Your task to perform on an android device: Search for "razer naga" on newegg.com, select the first entry, and add it to the cart. Image 0: 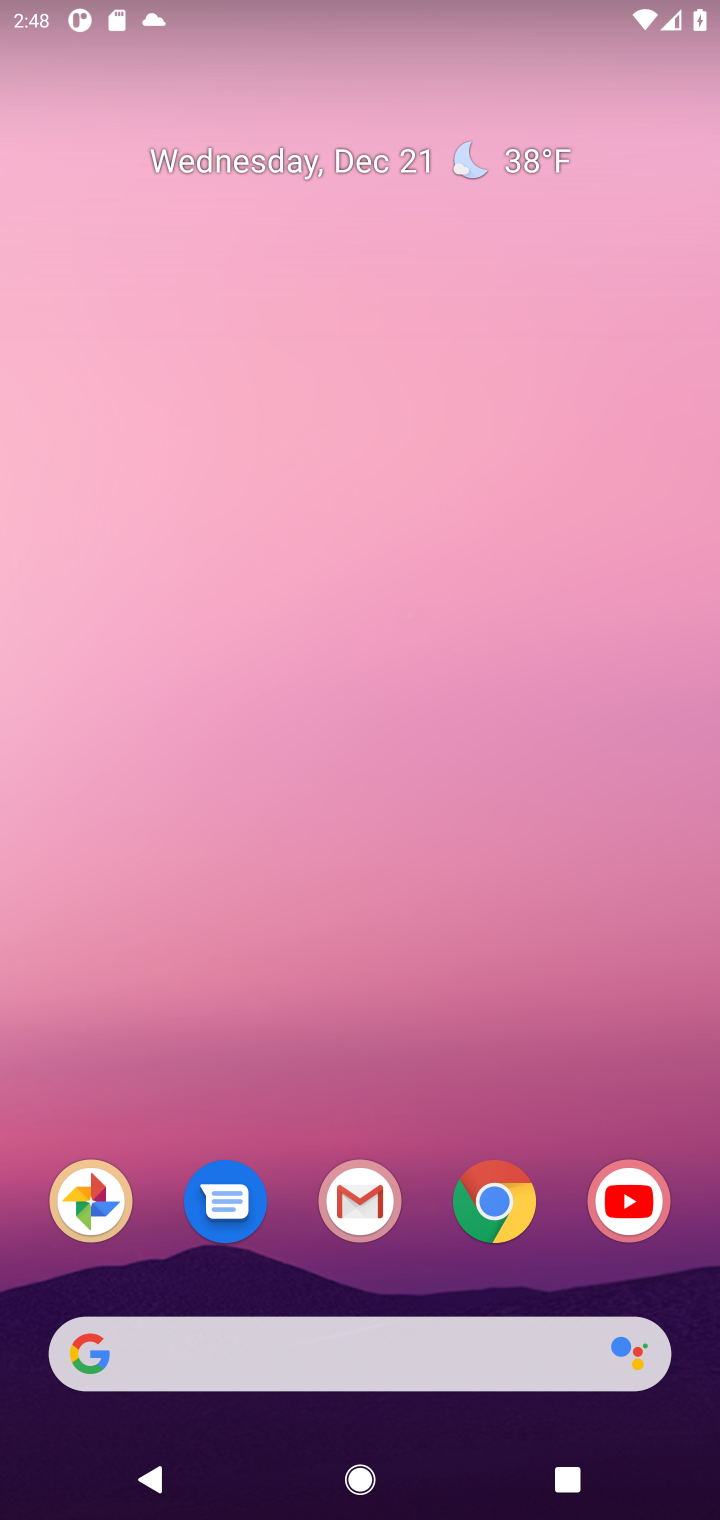
Step 0: click (493, 1216)
Your task to perform on an android device: Search for "razer naga" on newegg.com, select the first entry, and add it to the cart. Image 1: 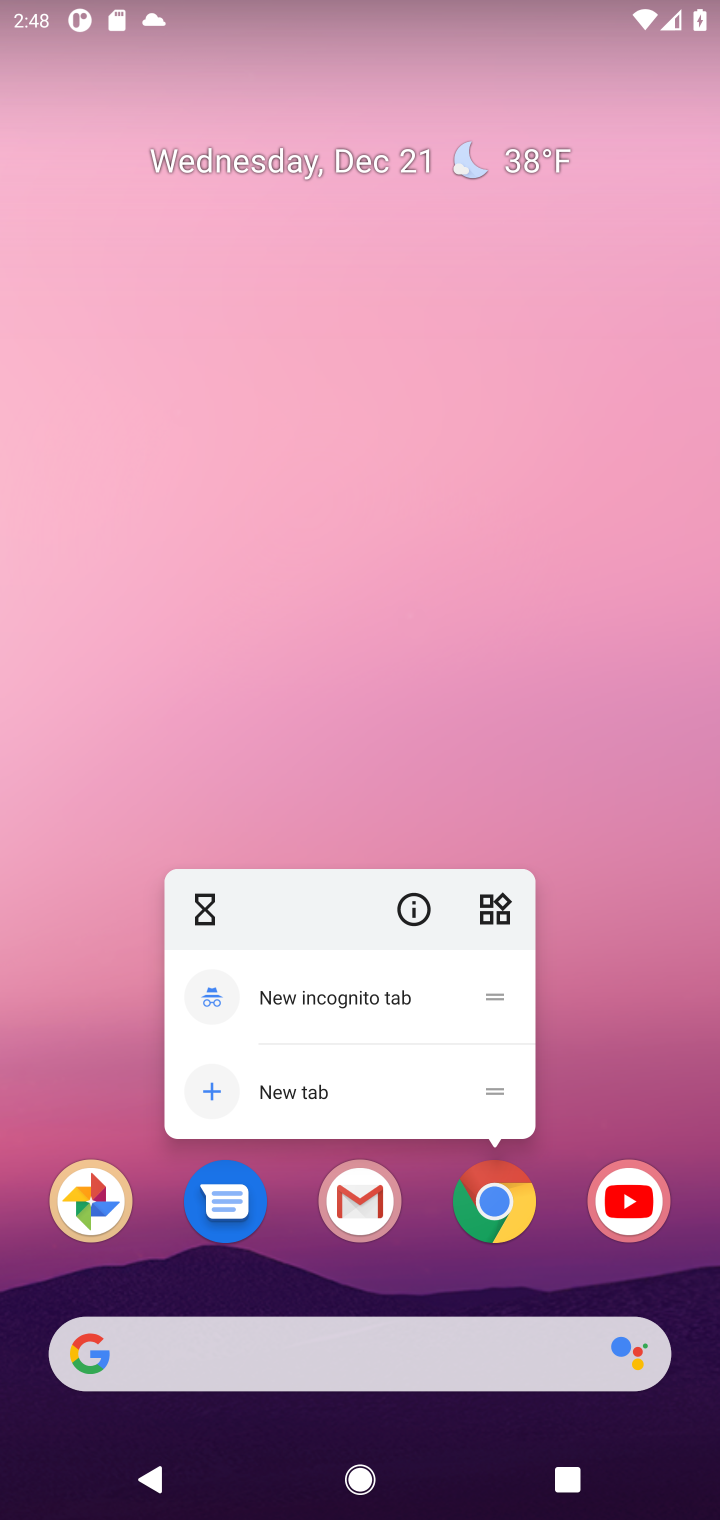
Step 1: click (493, 1216)
Your task to perform on an android device: Search for "razer naga" on newegg.com, select the first entry, and add it to the cart. Image 2: 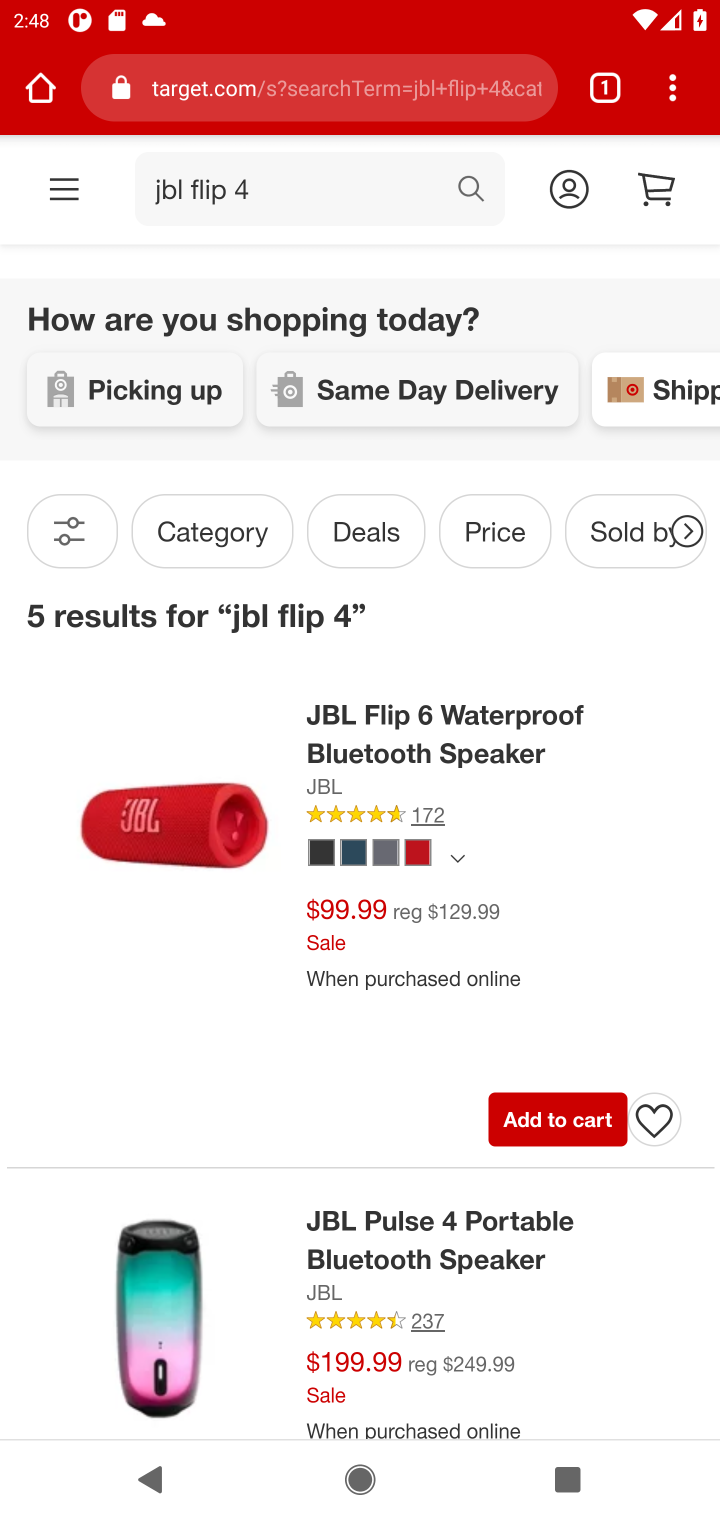
Step 2: click (251, 104)
Your task to perform on an android device: Search for "razer naga" on newegg.com, select the first entry, and add it to the cart. Image 3: 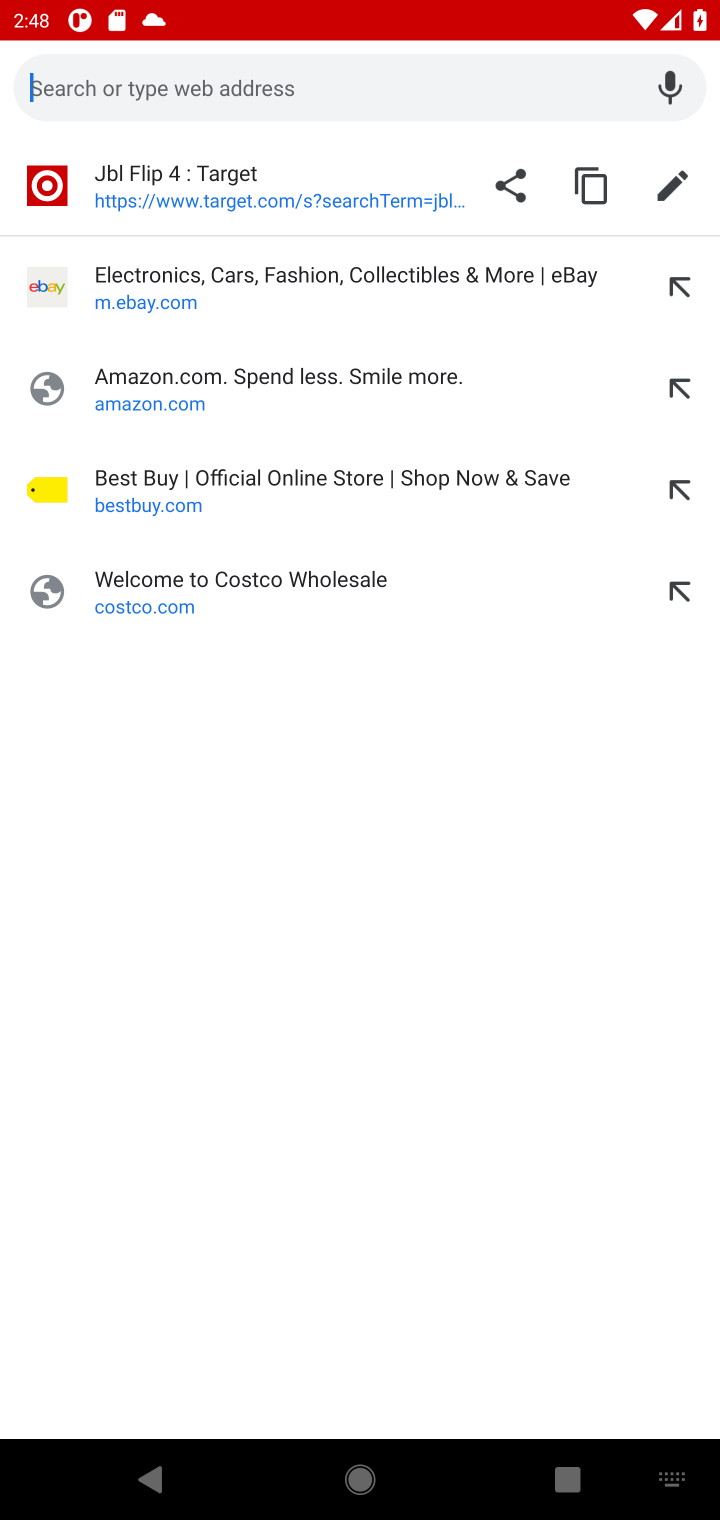
Step 3: type "newegg.com"
Your task to perform on an android device: Search for "razer naga" on newegg.com, select the first entry, and add it to the cart. Image 4: 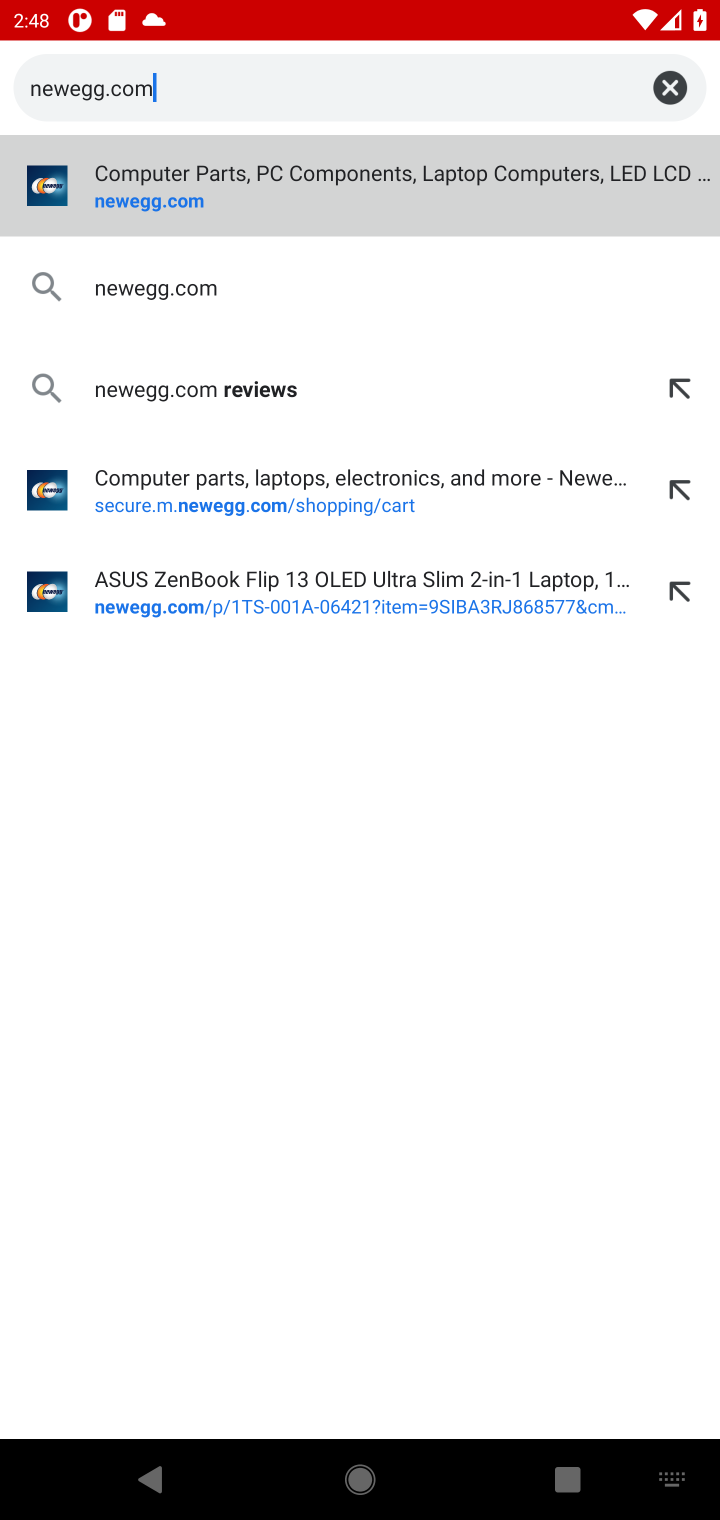
Step 4: click (136, 205)
Your task to perform on an android device: Search for "razer naga" on newegg.com, select the first entry, and add it to the cart. Image 5: 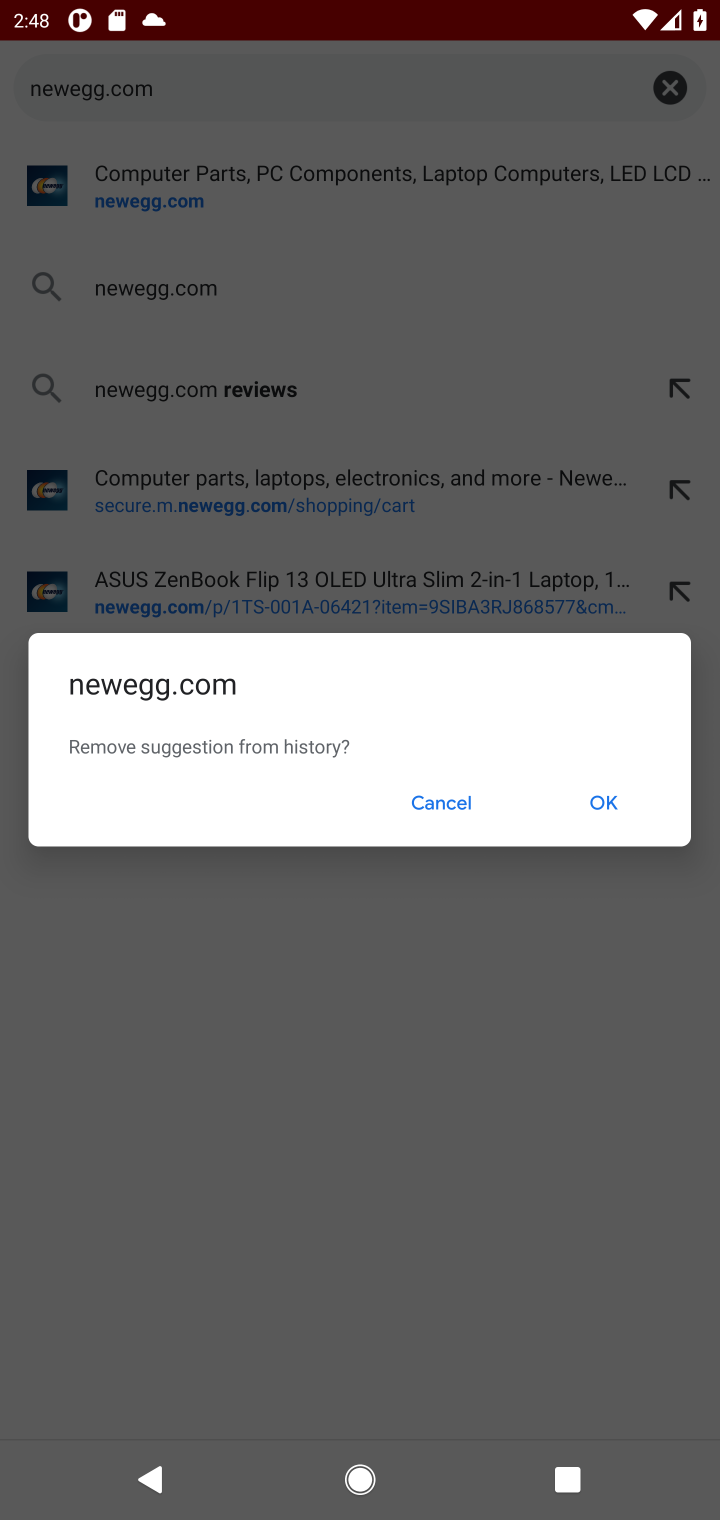
Step 5: click (434, 809)
Your task to perform on an android device: Search for "razer naga" on newegg.com, select the first entry, and add it to the cart. Image 6: 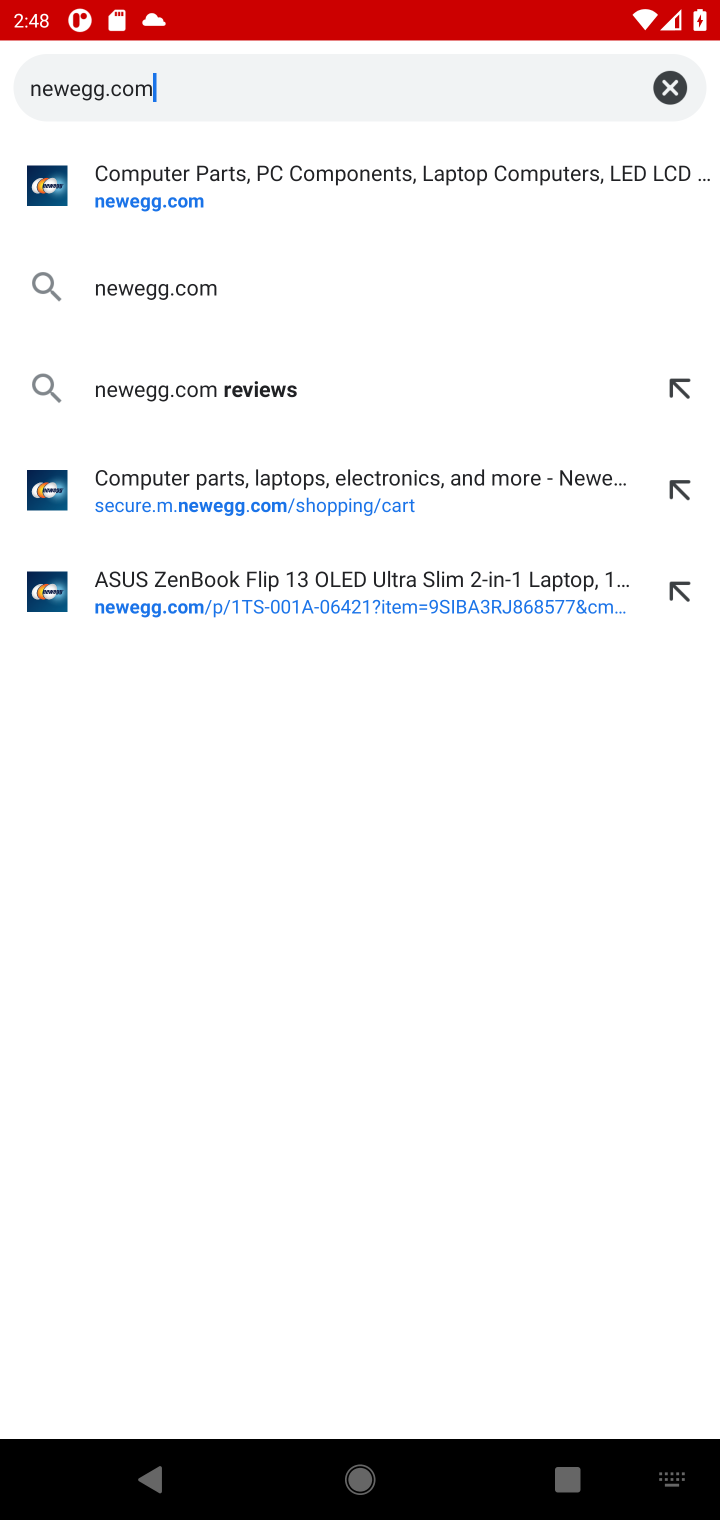
Step 6: click (147, 206)
Your task to perform on an android device: Search for "razer naga" on newegg.com, select the first entry, and add it to the cart. Image 7: 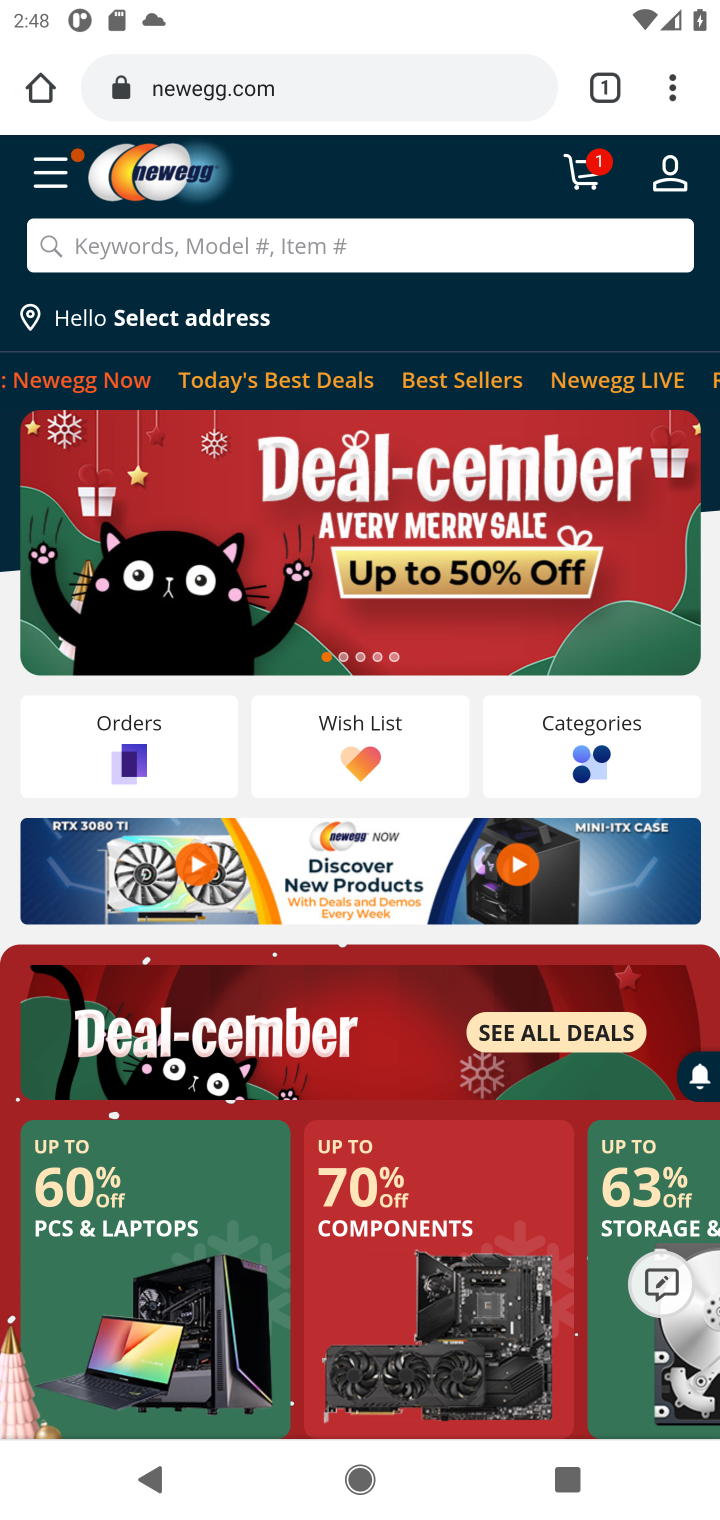
Step 7: click (91, 248)
Your task to perform on an android device: Search for "razer naga" on newegg.com, select the first entry, and add it to the cart. Image 8: 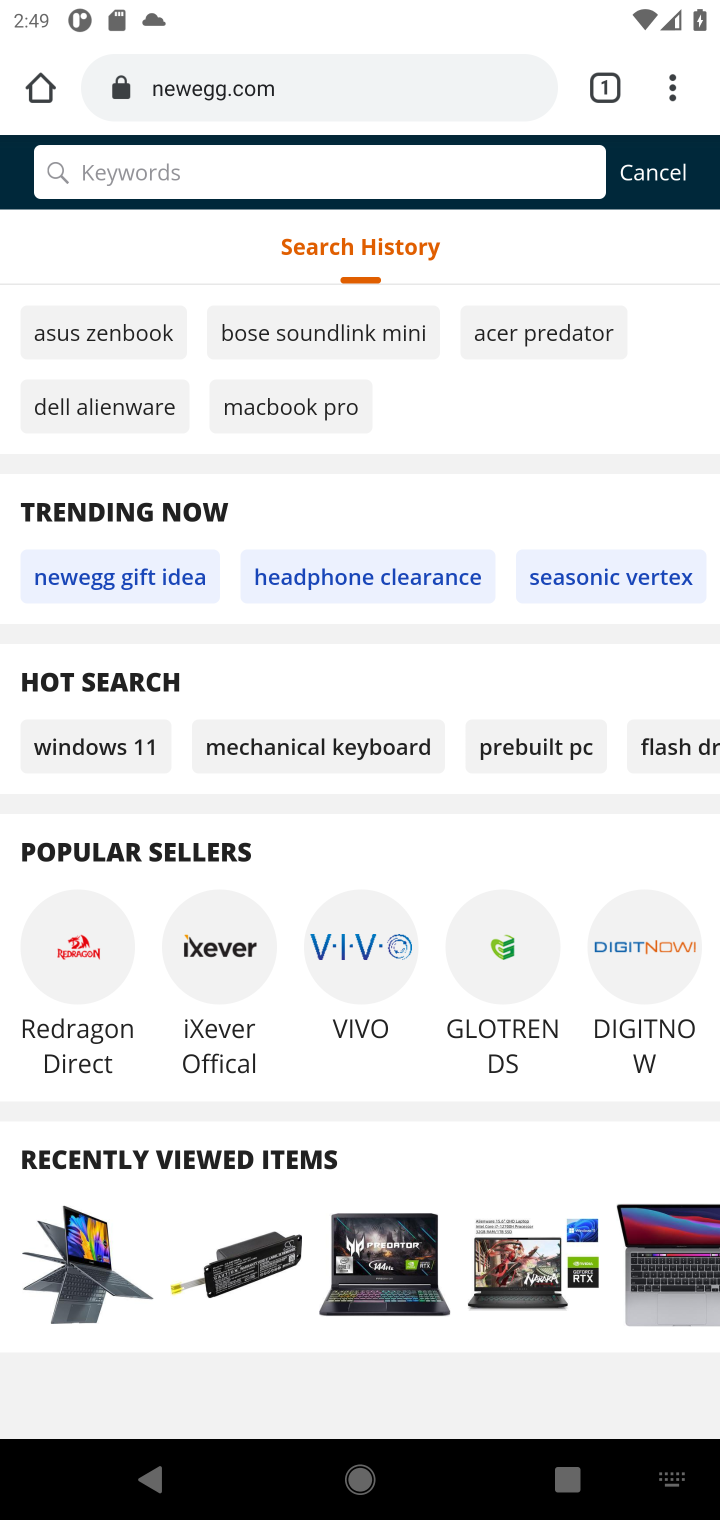
Step 8: type "razer naga"
Your task to perform on an android device: Search for "razer naga" on newegg.com, select the first entry, and add it to the cart. Image 9: 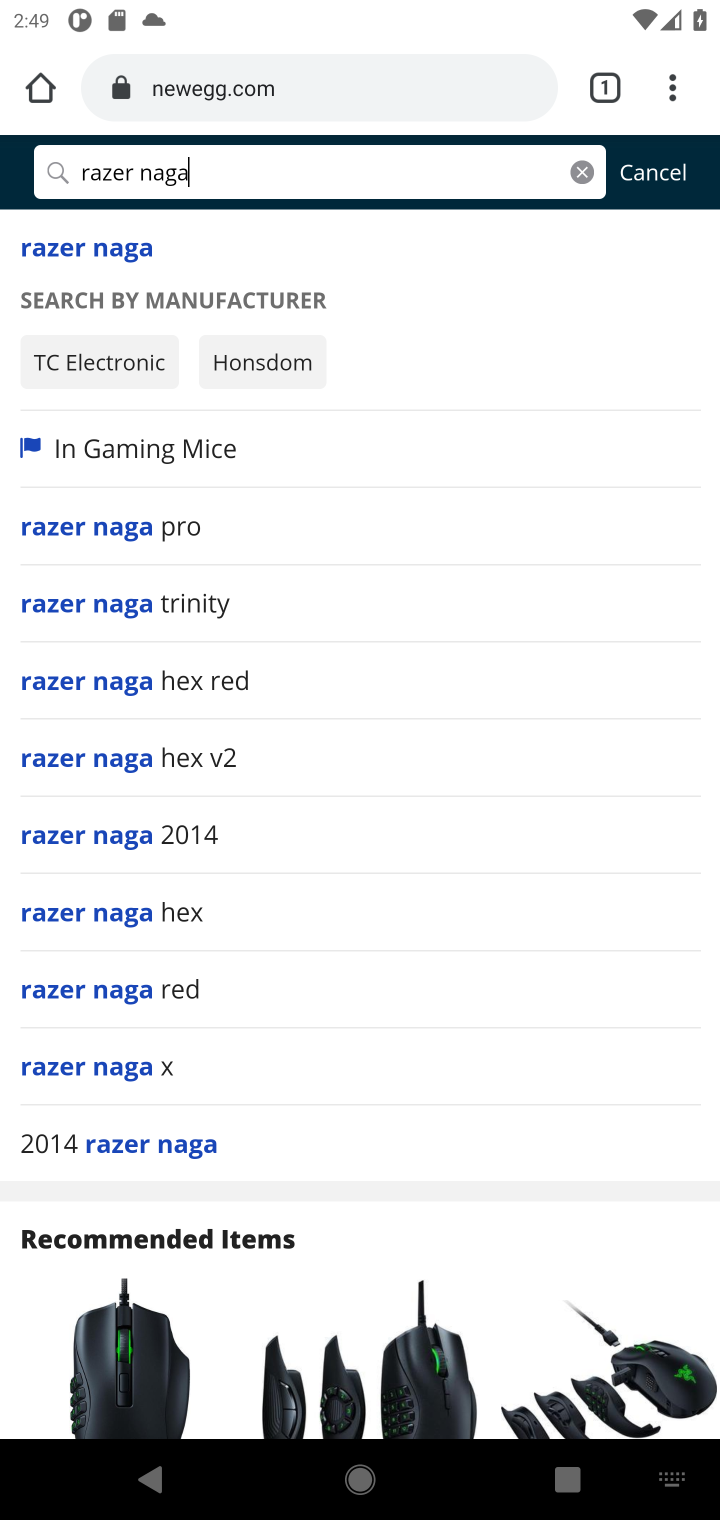
Step 9: click (94, 253)
Your task to perform on an android device: Search for "razer naga" on newegg.com, select the first entry, and add it to the cart. Image 10: 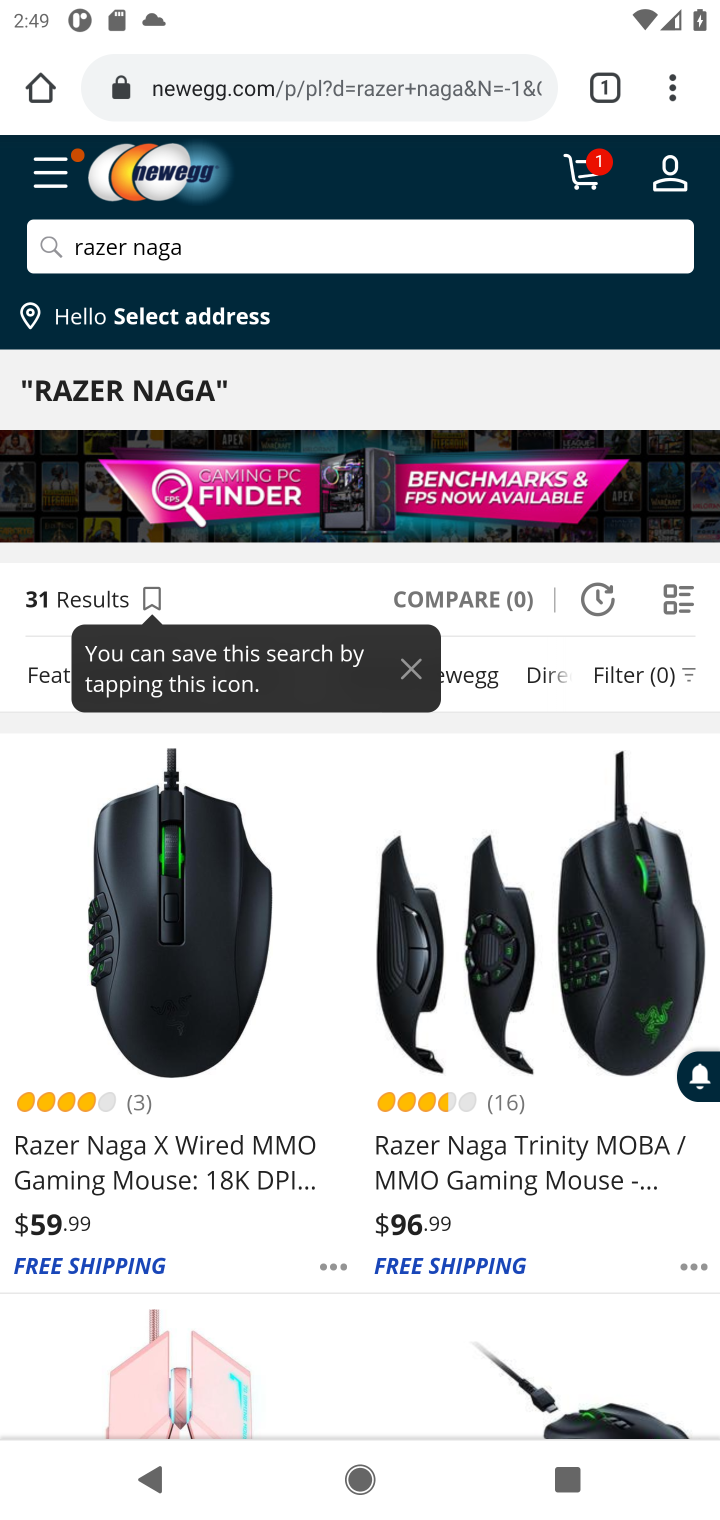
Step 10: click (134, 1178)
Your task to perform on an android device: Search for "razer naga" on newegg.com, select the first entry, and add it to the cart. Image 11: 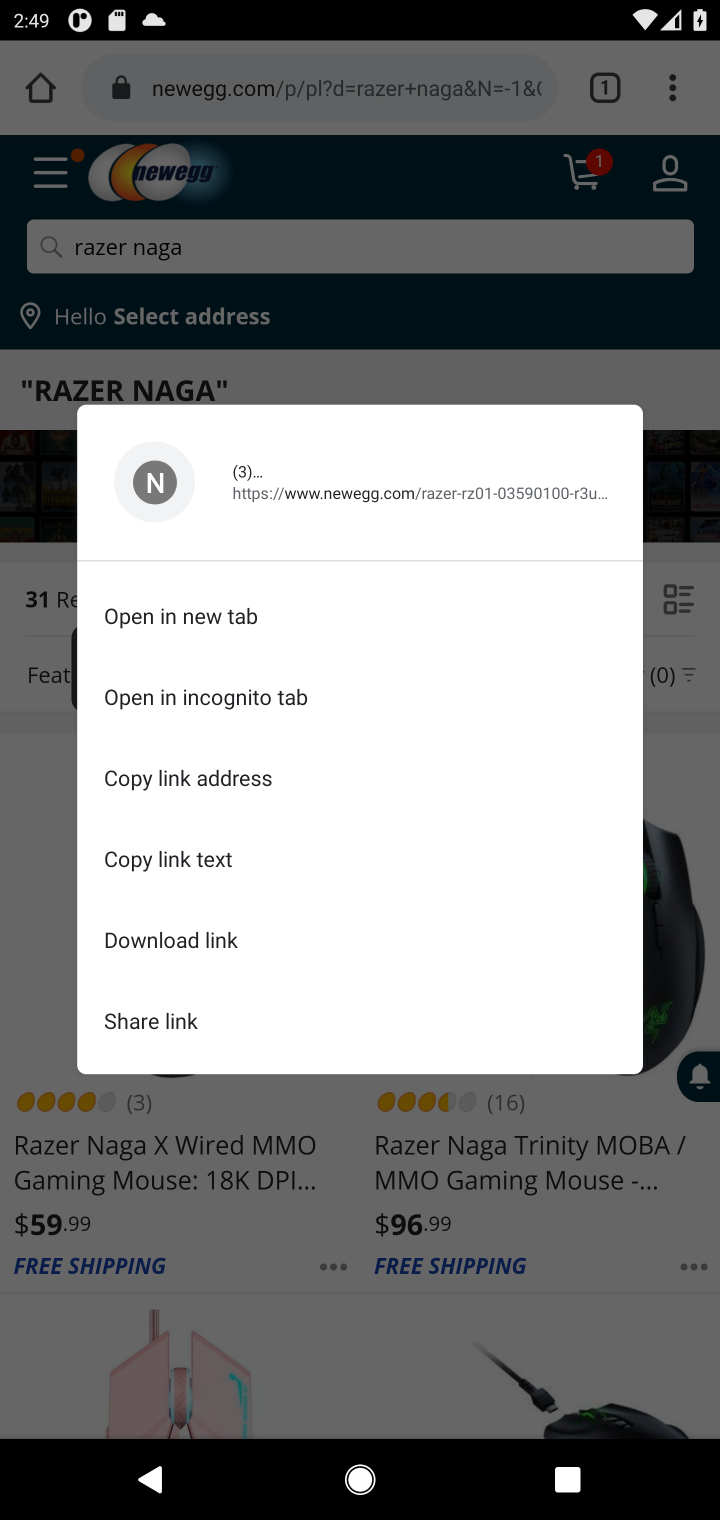
Step 11: click (134, 1161)
Your task to perform on an android device: Search for "razer naga" on newegg.com, select the first entry, and add it to the cart. Image 12: 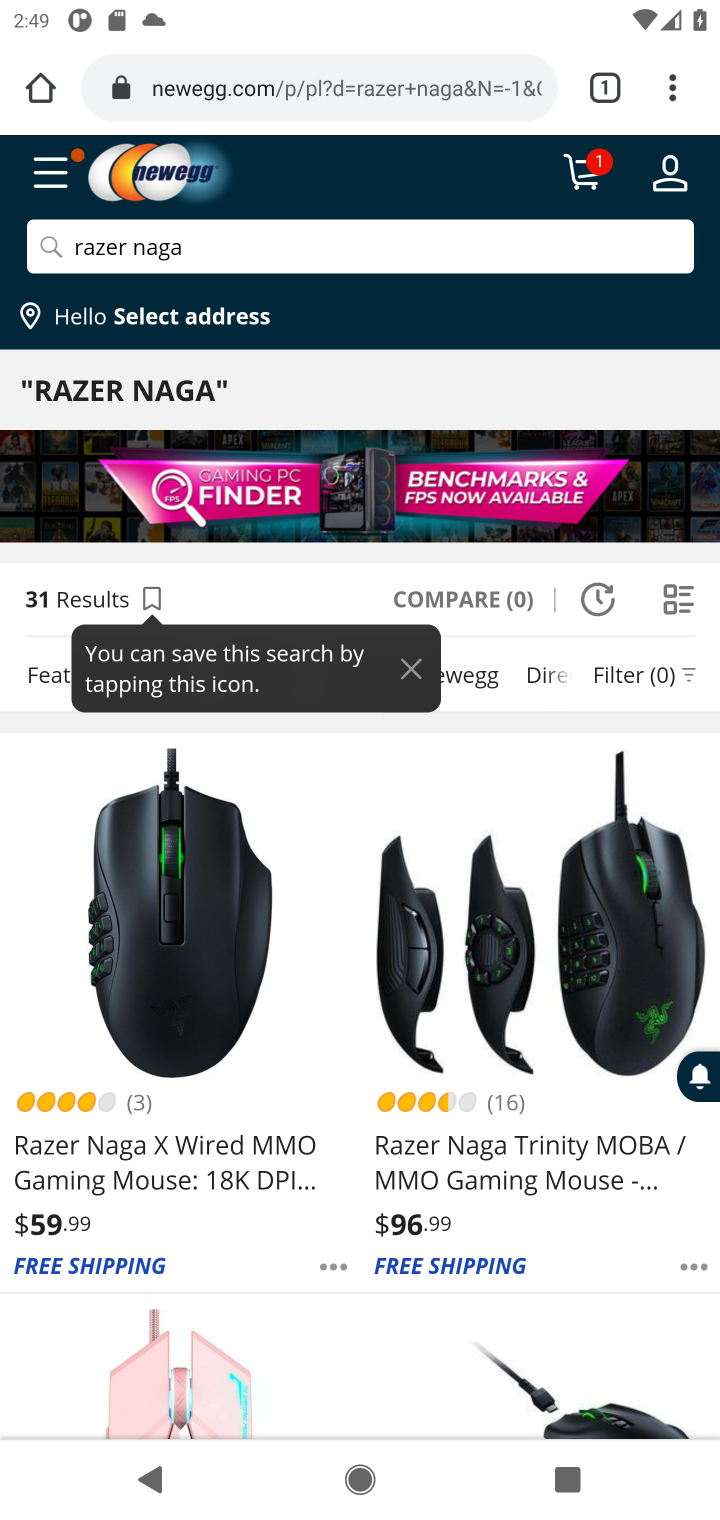
Step 12: click (126, 1169)
Your task to perform on an android device: Search for "razer naga" on newegg.com, select the first entry, and add it to the cart. Image 13: 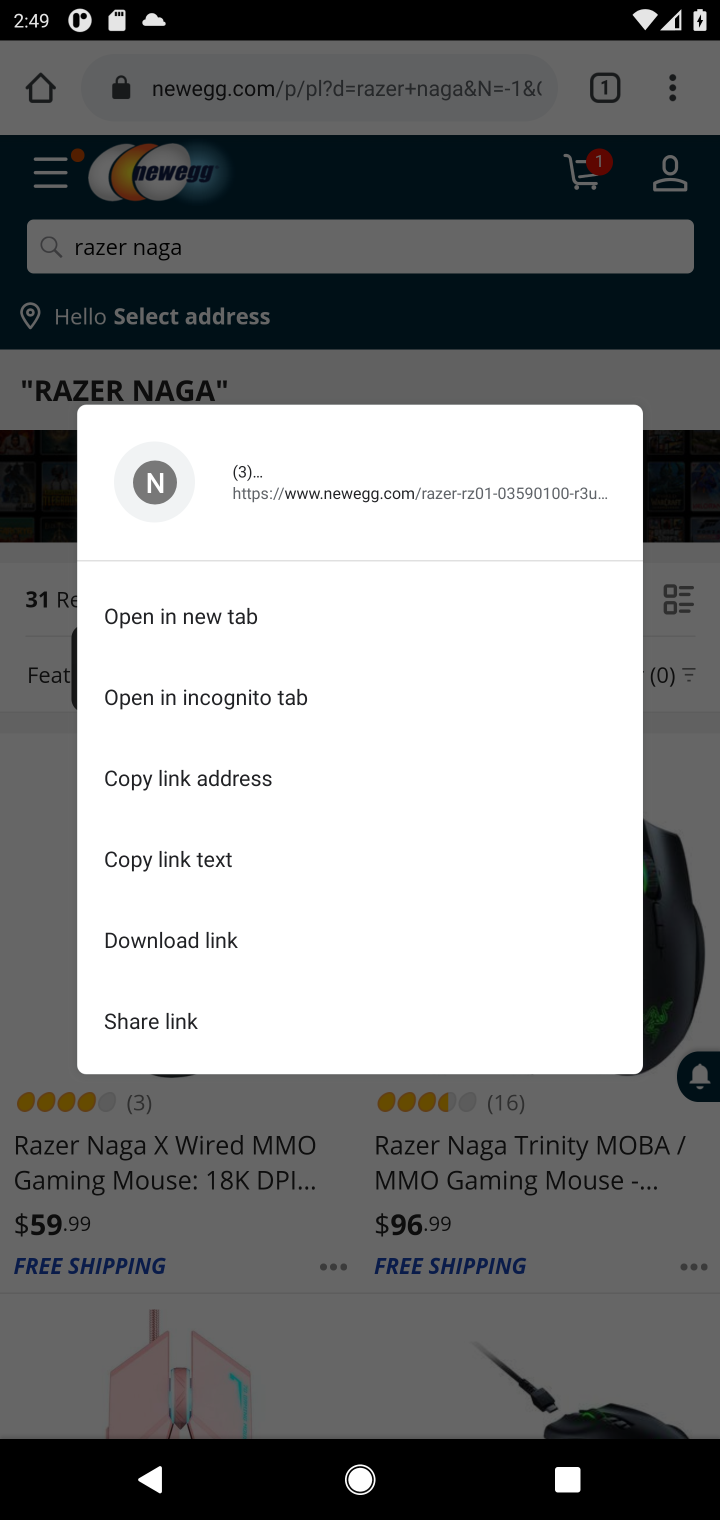
Step 13: click (126, 1169)
Your task to perform on an android device: Search for "razer naga" on newegg.com, select the first entry, and add it to the cart. Image 14: 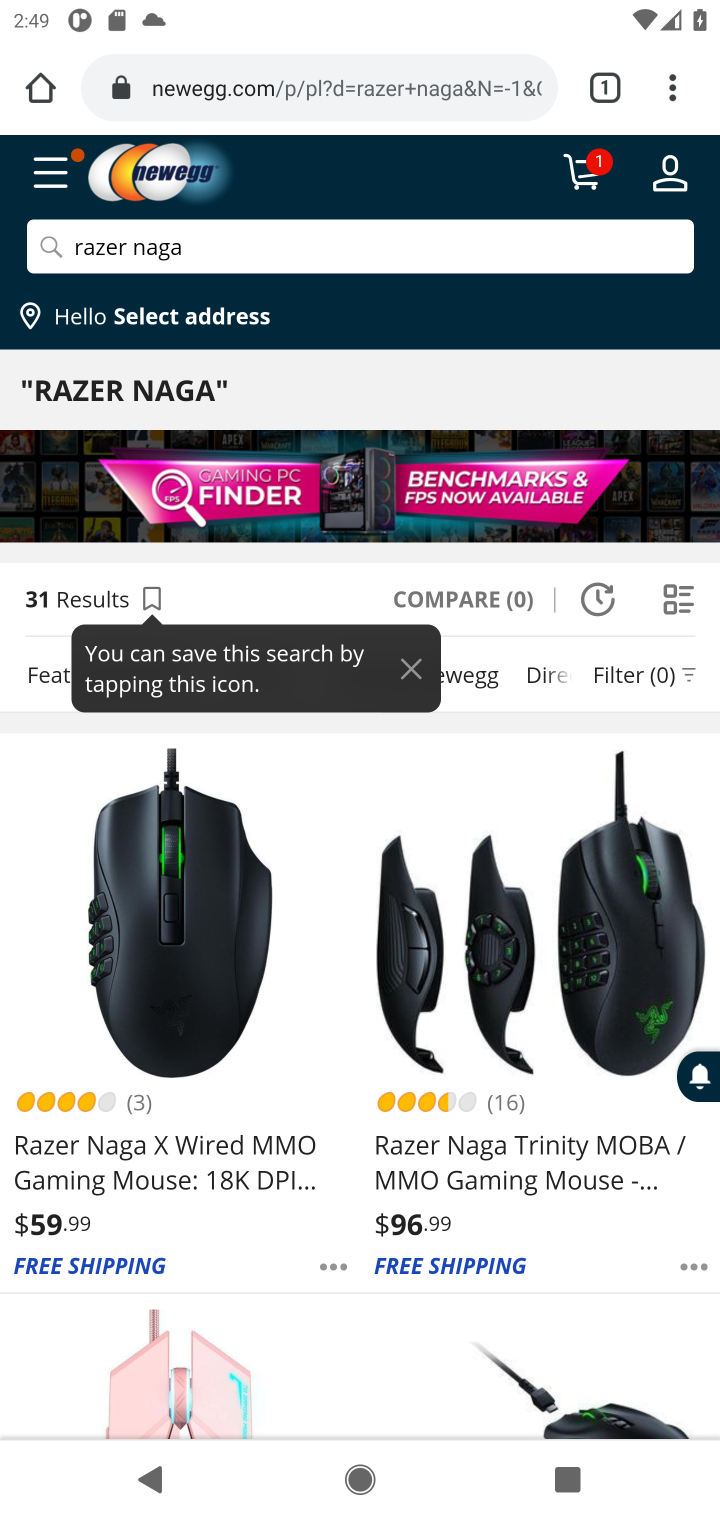
Step 14: click (126, 1169)
Your task to perform on an android device: Search for "razer naga" on newegg.com, select the first entry, and add it to the cart. Image 15: 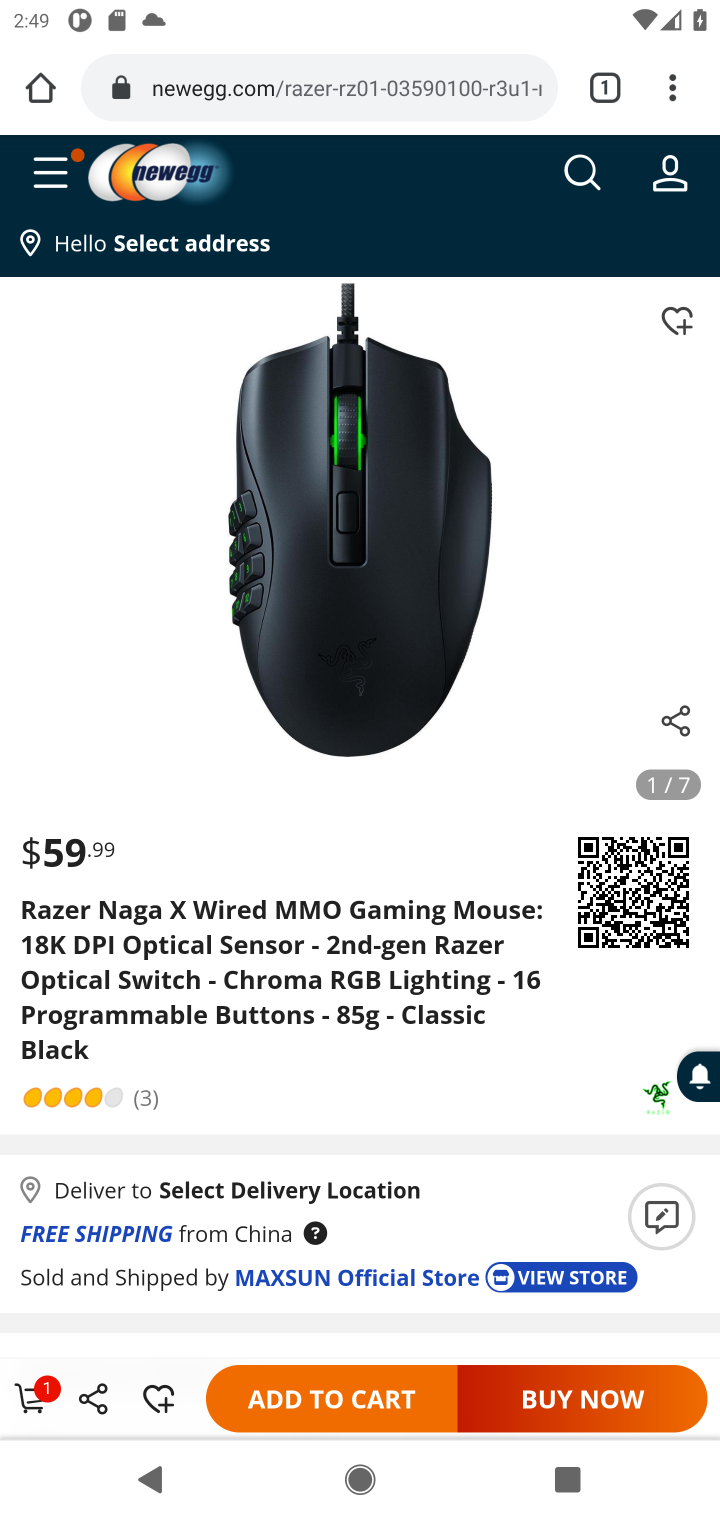
Step 15: click (335, 1400)
Your task to perform on an android device: Search for "razer naga" on newegg.com, select the first entry, and add it to the cart. Image 16: 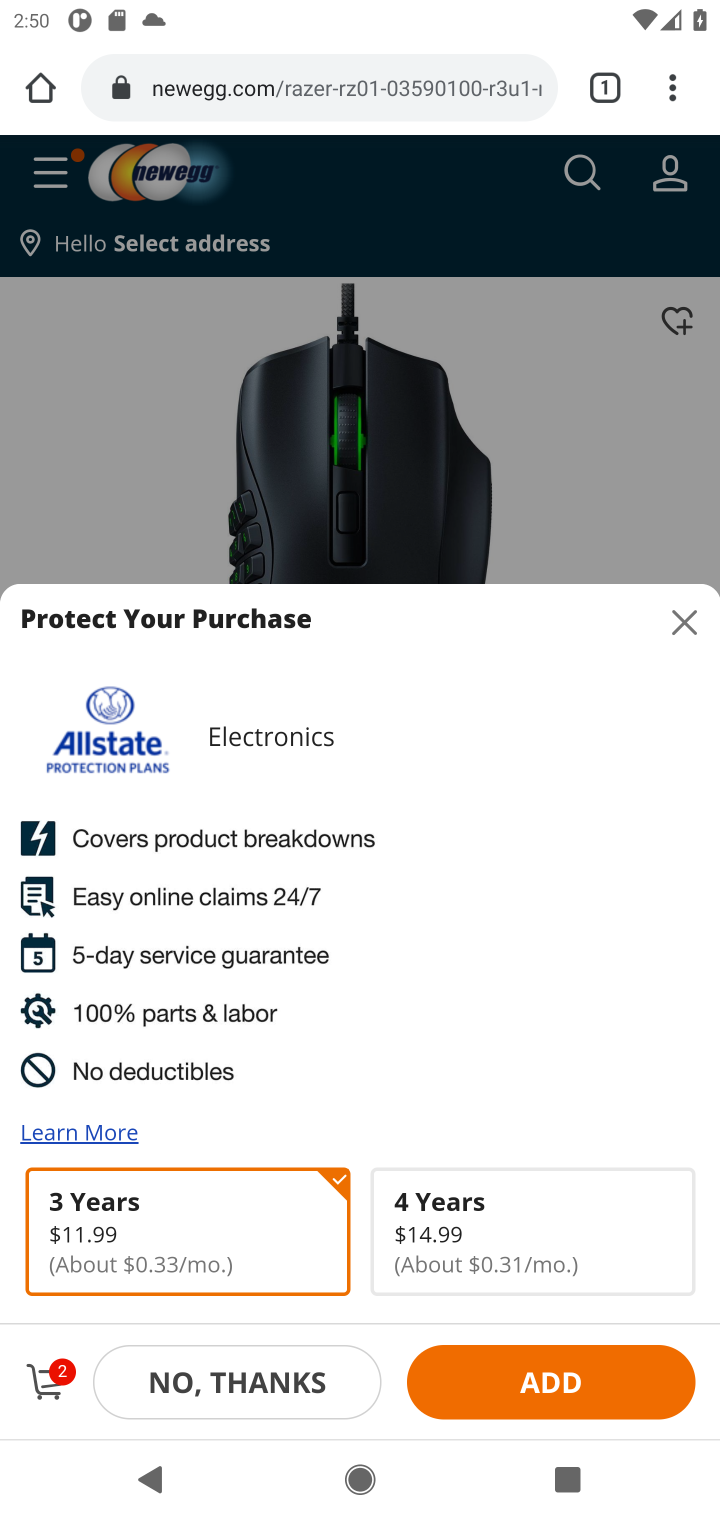
Step 16: task complete